Your task to perform on an android device: Set an alarm for 7pm Image 0: 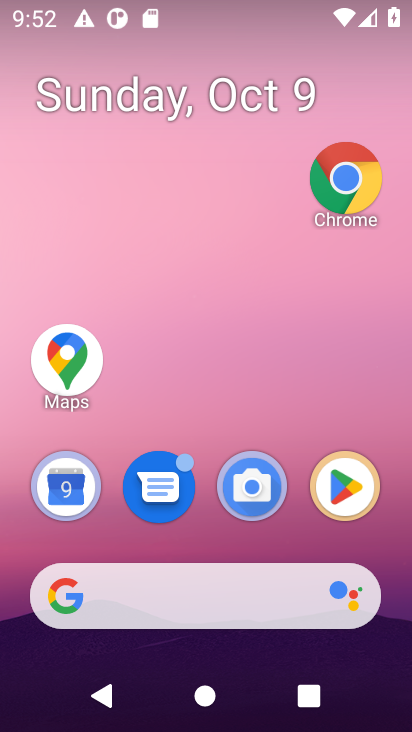
Step 0: drag from (313, 551) to (357, 147)
Your task to perform on an android device: Set an alarm for 7pm Image 1: 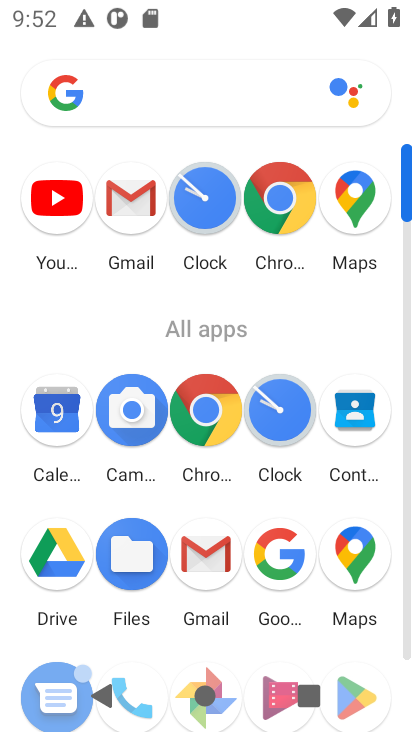
Step 1: click (295, 434)
Your task to perform on an android device: Set an alarm for 7pm Image 2: 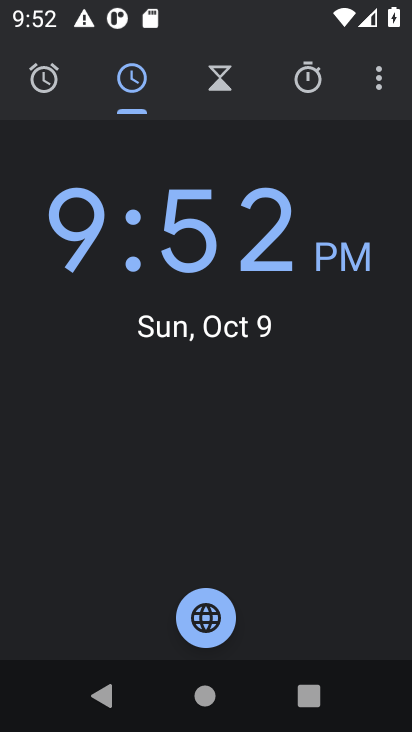
Step 2: click (60, 85)
Your task to perform on an android device: Set an alarm for 7pm Image 3: 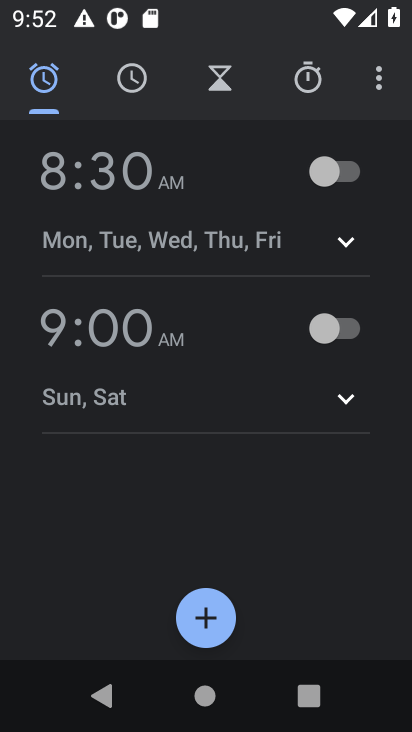
Step 3: click (220, 610)
Your task to perform on an android device: Set an alarm for 7pm Image 4: 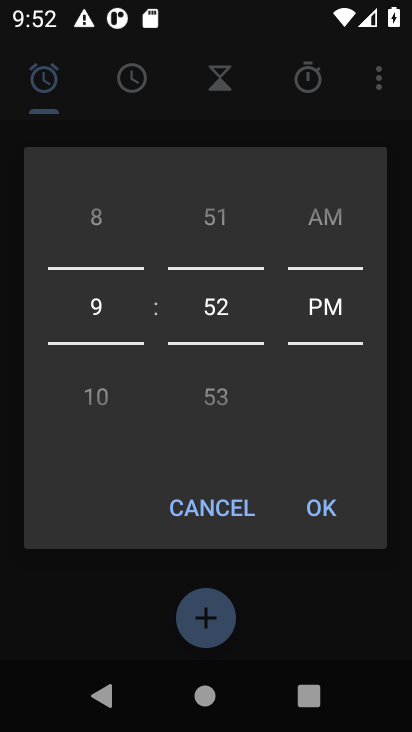
Step 4: drag from (103, 306) to (97, 450)
Your task to perform on an android device: Set an alarm for 7pm Image 5: 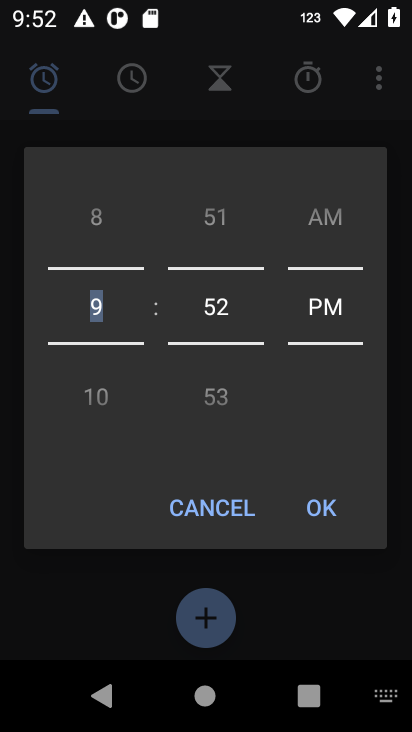
Step 5: drag from (111, 233) to (113, 513)
Your task to perform on an android device: Set an alarm for 7pm Image 6: 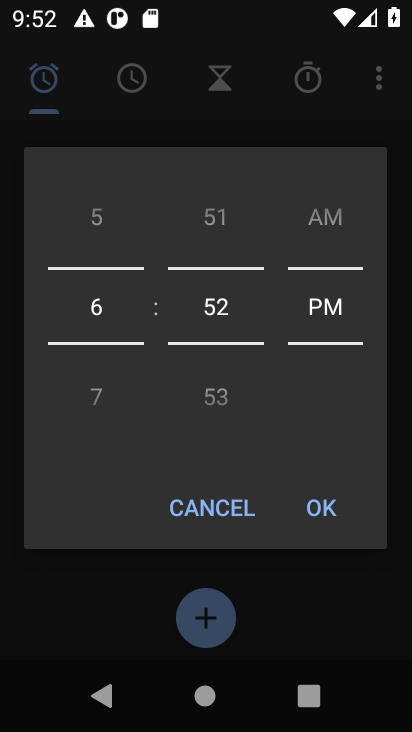
Step 6: drag from (113, 298) to (143, 80)
Your task to perform on an android device: Set an alarm for 7pm Image 7: 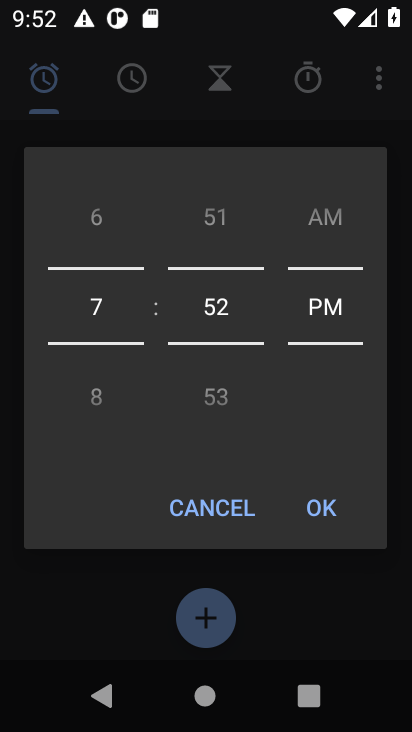
Step 7: drag from (223, 381) to (239, 26)
Your task to perform on an android device: Set an alarm for 7pm Image 8: 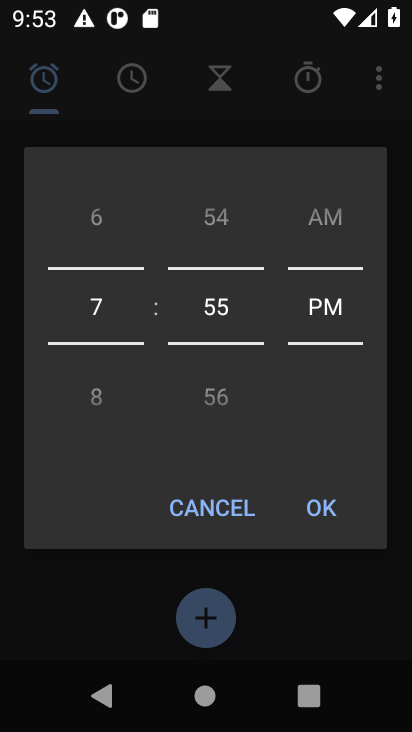
Step 8: drag from (221, 367) to (238, 119)
Your task to perform on an android device: Set an alarm for 7pm Image 9: 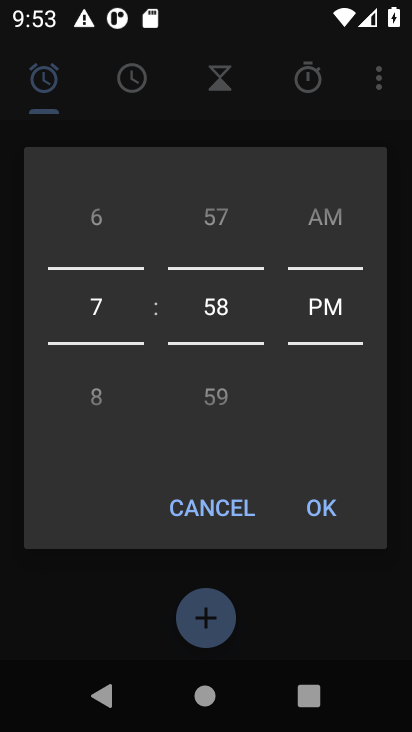
Step 9: drag from (212, 395) to (212, 190)
Your task to perform on an android device: Set an alarm for 7pm Image 10: 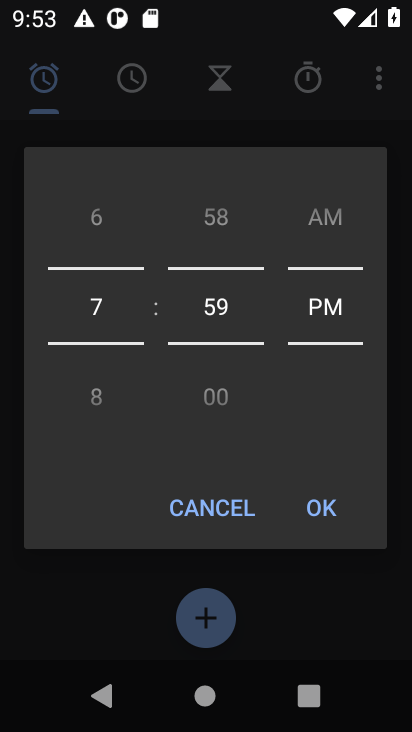
Step 10: drag from (212, 368) to (218, 272)
Your task to perform on an android device: Set an alarm for 7pm Image 11: 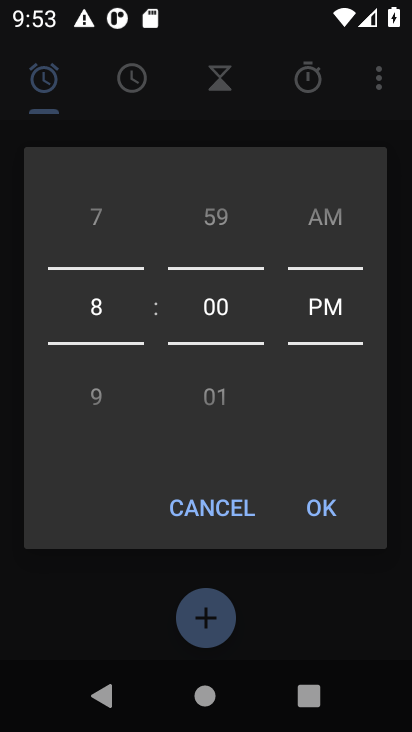
Step 11: click (93, 280)
Your task to perform on an android device: Set an alarm for 7pm Image 12: 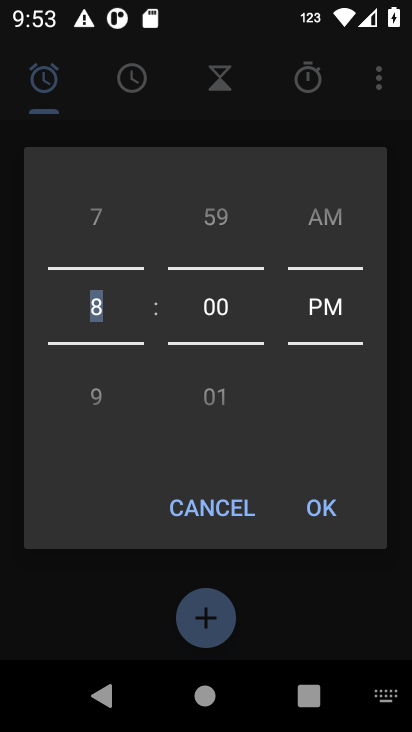
Step 12: click (93, 286)
Your task to perform on an android device: Set an alarm for 7pm Image 13: 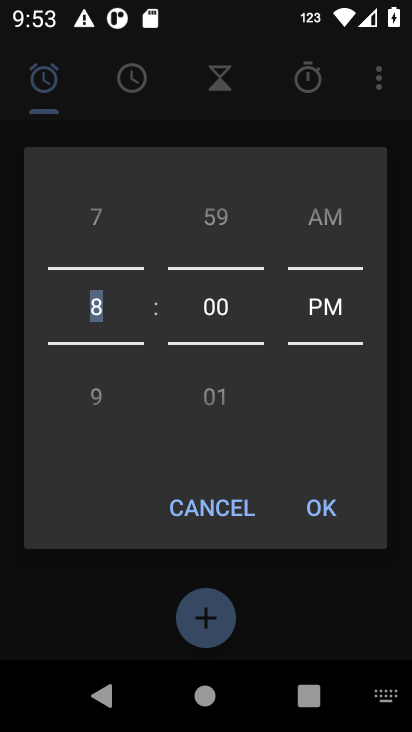
Step 13: drag from (104, 228) to (125, 375)
Your task to perform on an android device: Set an alarm for 7pm Image 14: 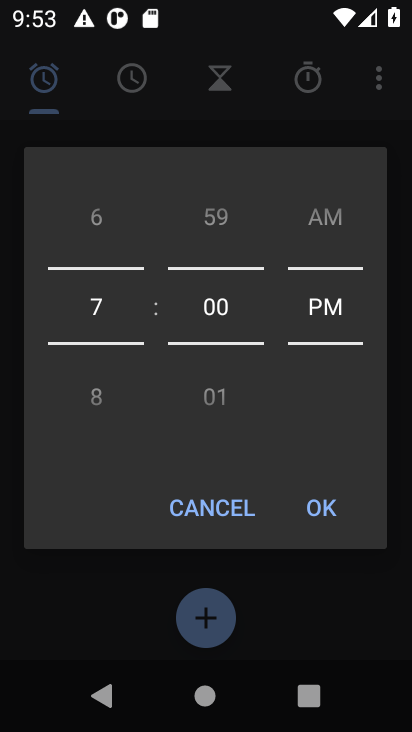
Step 14: click (329, 504)
Your task to perform on an android device: Set an alarm for 7pm Image 15: 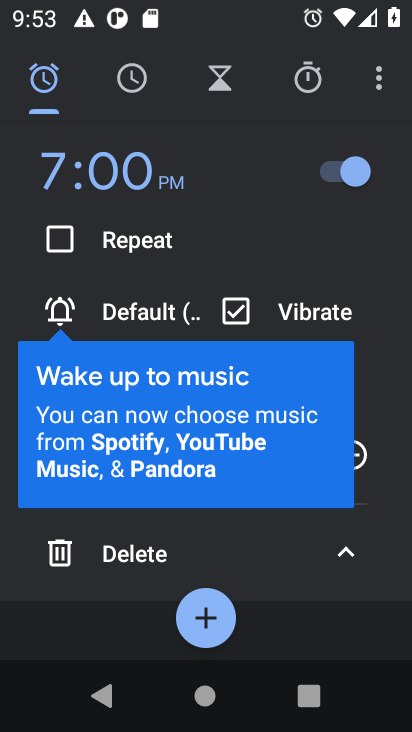
Step 15: task complete